Your task to perform on an android device: change the clock display to analog Image 0: 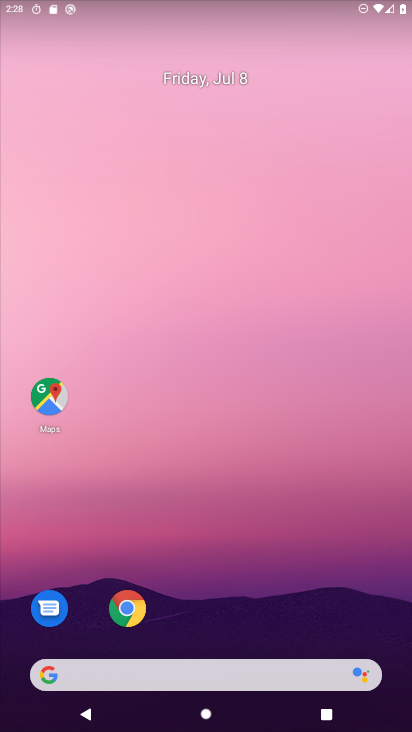
Step 0: drag from (255, 706) to (268, 130)
Your task to perform on an android device: change the clock display to analog Image 1: 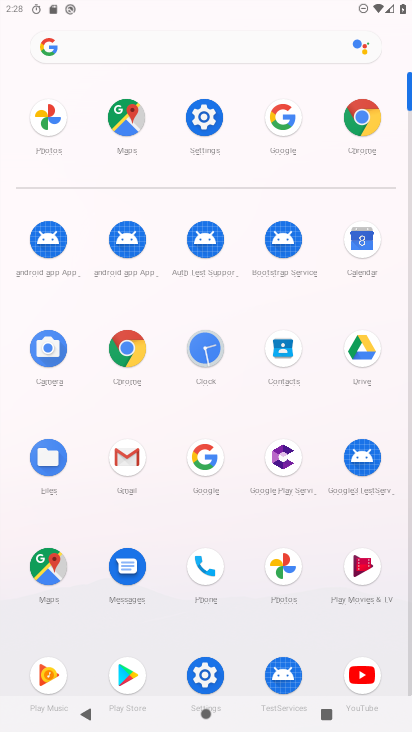
Step 1: click (205, 352)
Your task to perform on an android device: change the clock display to analog Image 2: 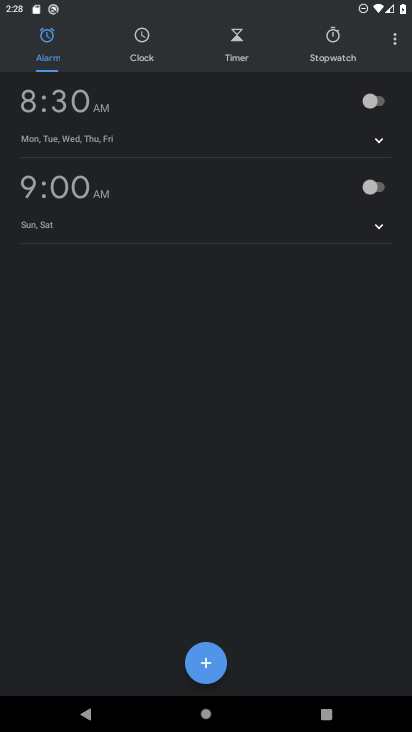
Step 2: click (396, 47)
Your task to perform on an android device: change the clock display to analog Image 3: 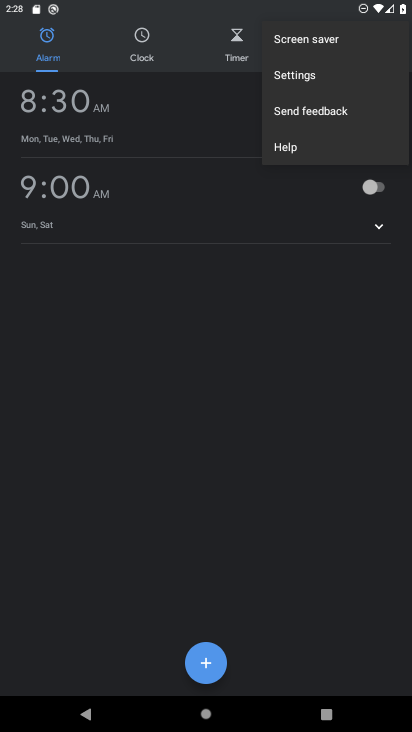
Step 3: click (300, 75)
Your task to perform on an android device: change the clock display to analog Image 4: 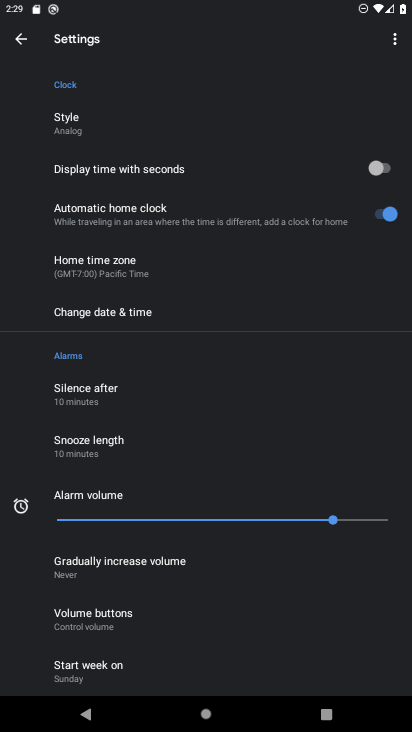
Step 4: task complete